Your task to perform on an android device: toggle priority inbox in the gmail app Image 0: 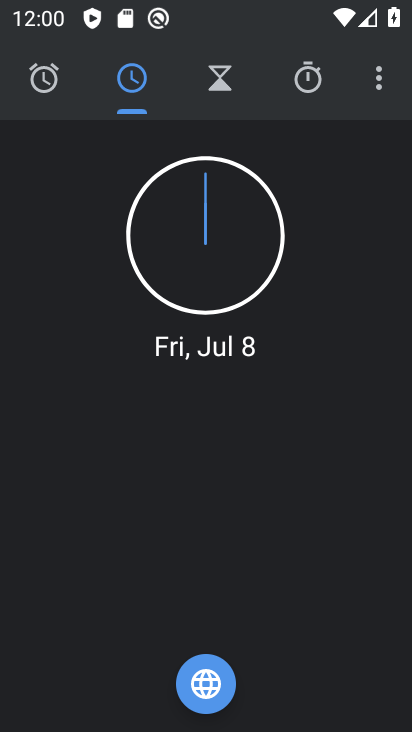
Step 0: press home button
Your task to perform on an android device: toggle priority inbox in the gmail app Image 1: 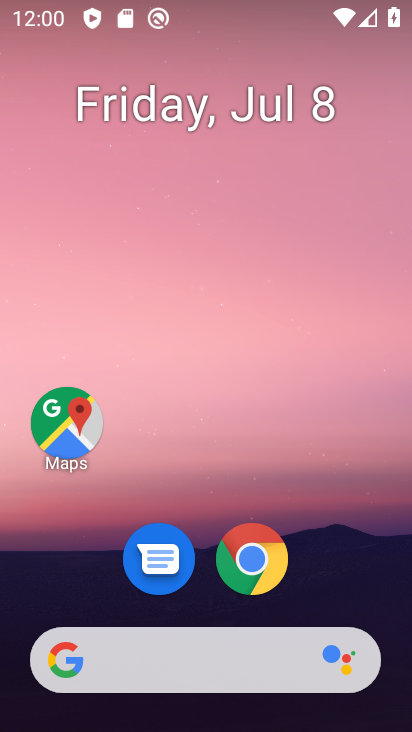
Step 1: drag from (184, 616) to (129, 125)
Your task to perform on an android device: toggle priority inbox in the gmail app Image 2: 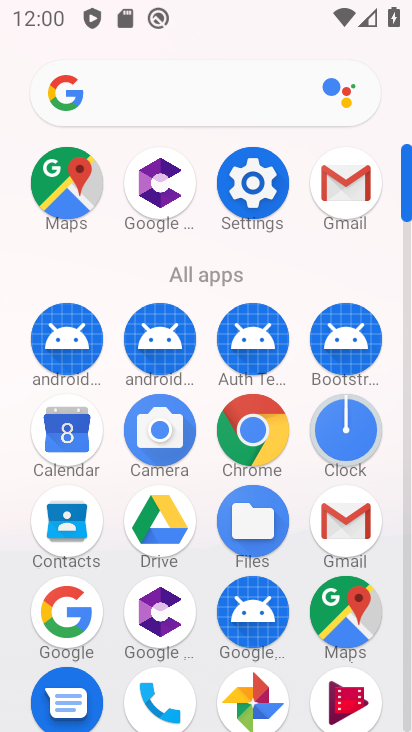
Step 2: click (345, 195)
Your task to perform on an android device: toggle priority inbox in the gmail app Image 3: 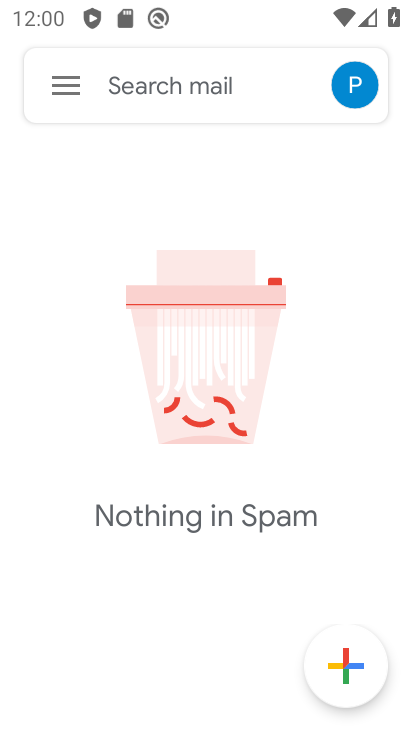
Step 3: click (77, 86)
Your task to perform on an android device: toggle priority inbox in the gmail app Image 4: 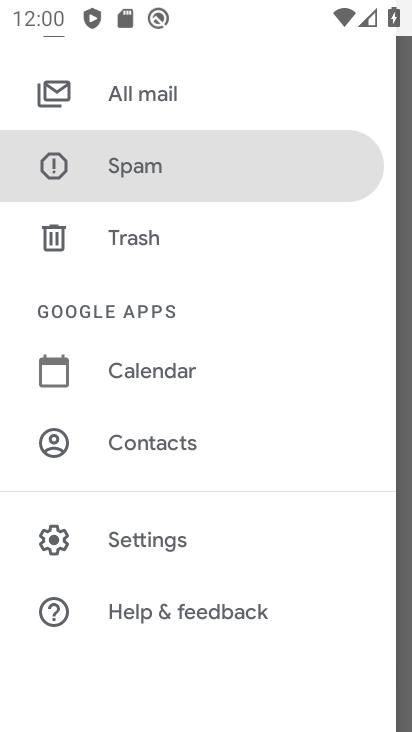
Step 4: click (162, 525)
Your task to perform on an android device: toggle priority inbox in the gmail app Image 5: 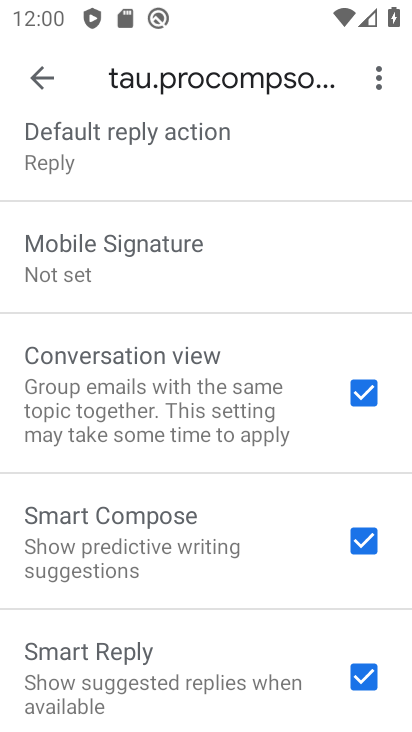
Step 5: drag from (175, 533) to (180, 686)
Your task to perform on an android device: toggle priority inbox in the gmail app Image 6: 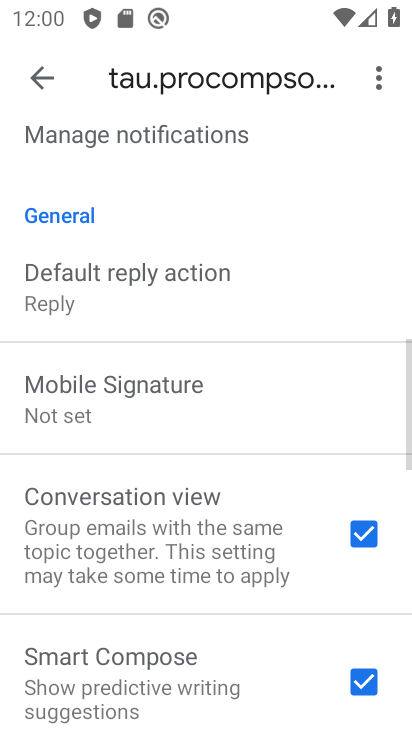
Step 6: drag from (215, 205) to (198, 588)
Your task to perform on an android device: toggle priority inbox in the gmail app Image 7: 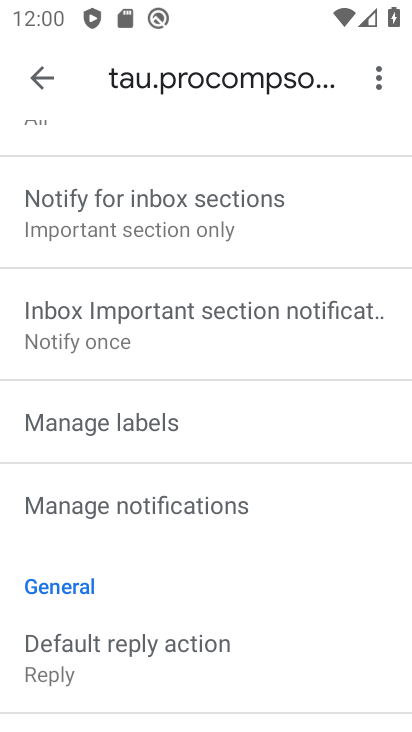
Step 7: drag from (173, 199) to (187, 625)
Your task to perform on an android device: toggle priority inbox in the gmail app Image 8: 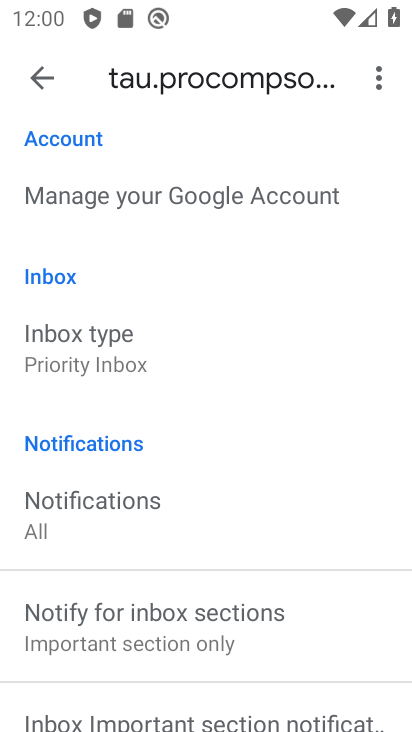
Step 8: drag from (149, 192) to (132, 609)
Your task to perform on an android device: toggle priority inbox in the gmail app Image 9: 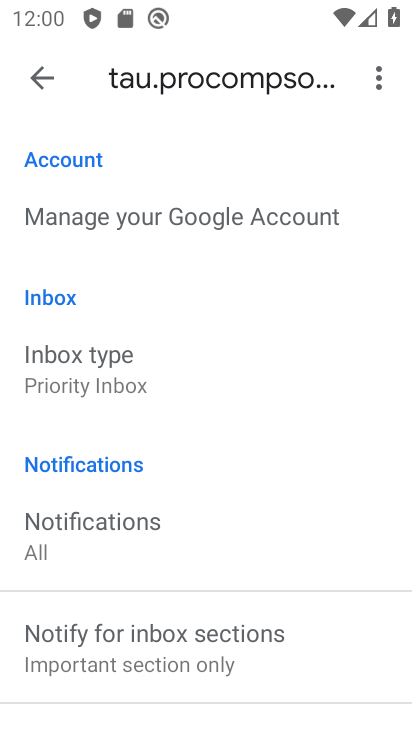
Step 9: click (68, 375)
Your task to perform on an android device: toggle priority inbox in the gmail app Image 10: 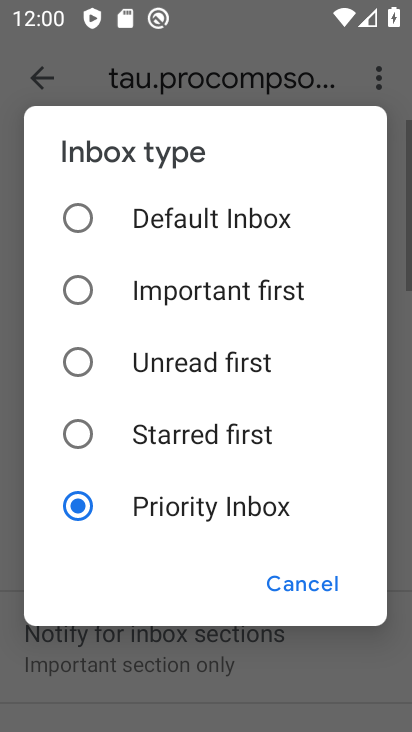
Step 10: click (113, 442)
Your task to perform on an android device: toggle priority inbox in the gmail app Image 11: 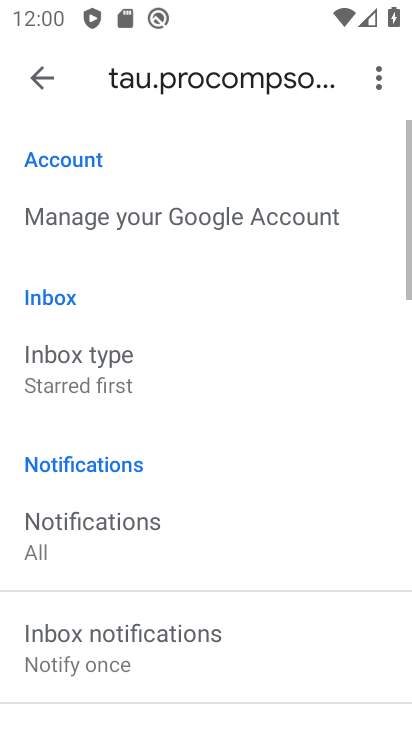
Step 11: task complete